Your task to perform on an android device: Show me popular videos on Youtube Image 0: 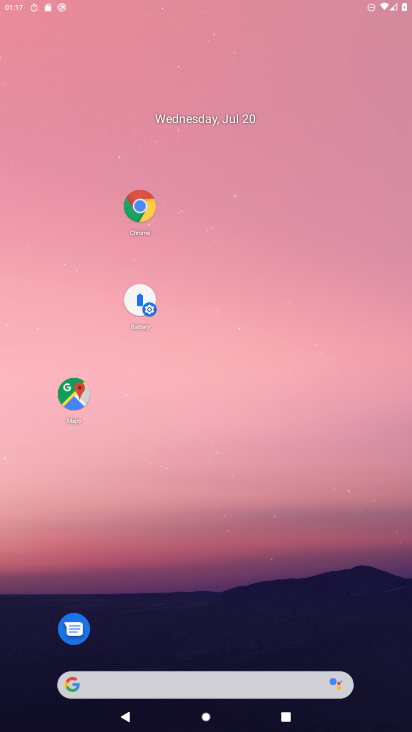
Step 0: drag from (375, 194) to (375, 111)
Your task to perform on an android device: Show me popular videos on Youtube Image 1: 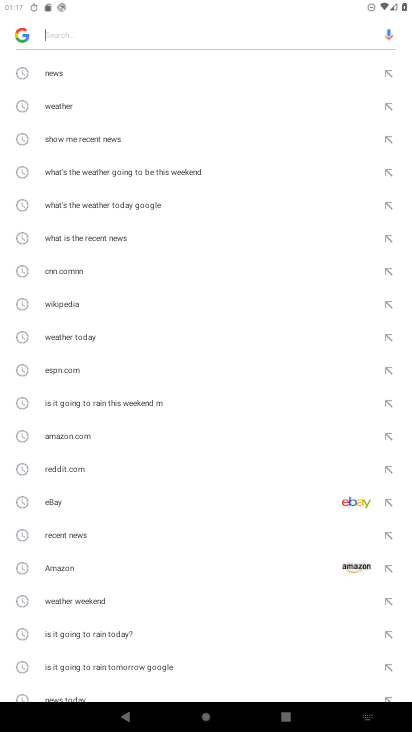
Step 1: press home button
Your task to perform on an android device: Show me popular videos on Youtube Image 2: 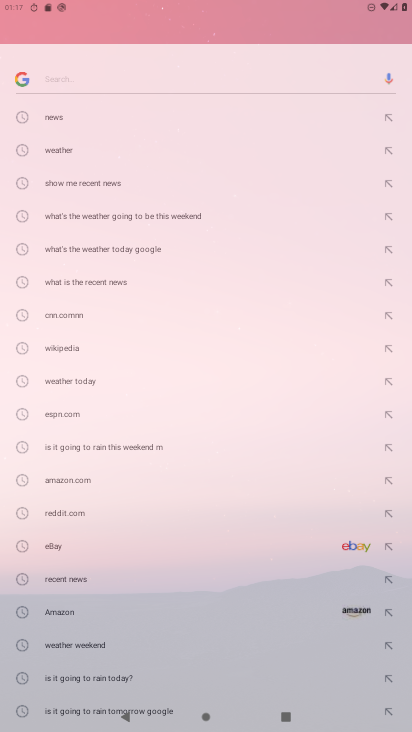
Step 2: drag from (125, 610) to (156, 28)
Your task to perform on an android device: Show me popular videos on Youtube Image 3: 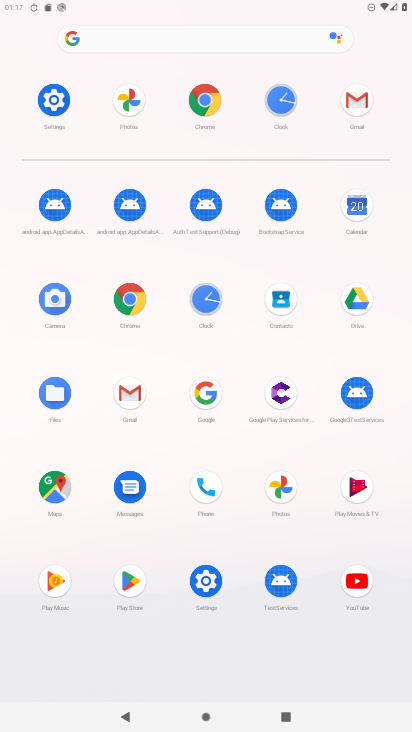
Step 3: click (352, 584)
Your task to perform on an android device: Show me popular videos on Youtube Image 4: 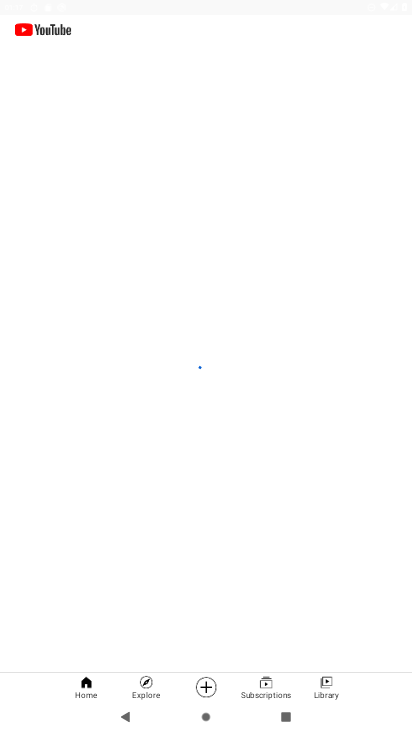
Step 4: task complete